Your task to perform on an android device: check battery use Image 0: 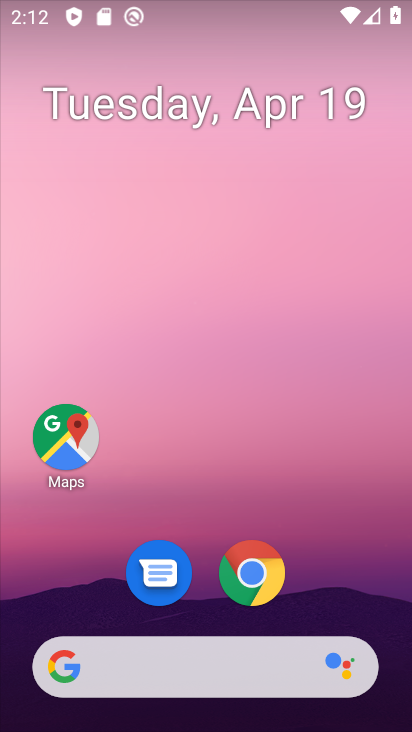
Step 0: drag from (356, 601) to (352, 28)
Your task to perform on an android device: check battery use Image 1: 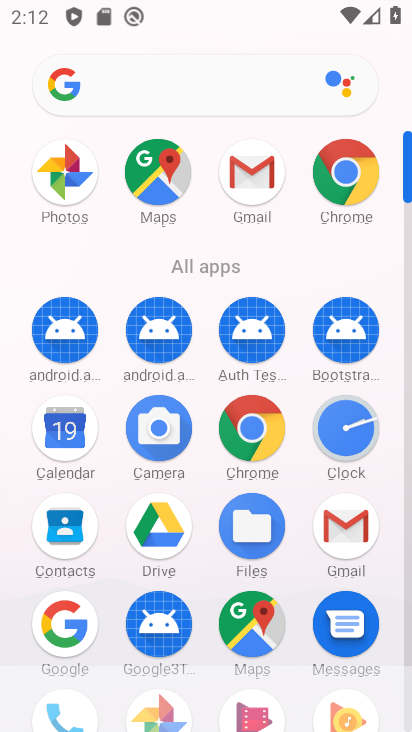
Step 1: click (409, 605)
Your task to perform on an android device: check battery use Image 2: 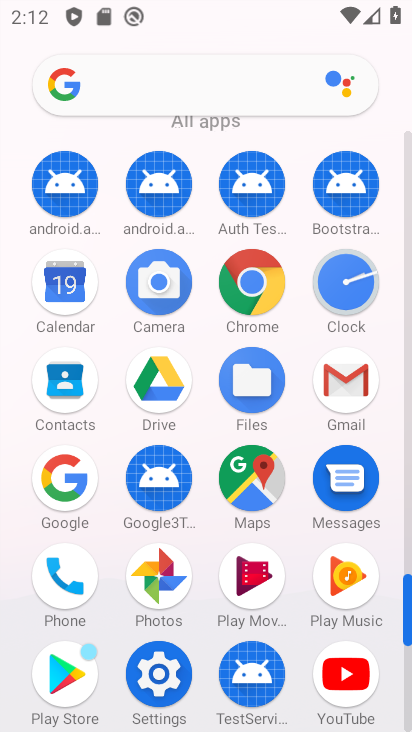
Step 2: click (156, 676)
Your task to perform on an android device: check battery use Image 3: 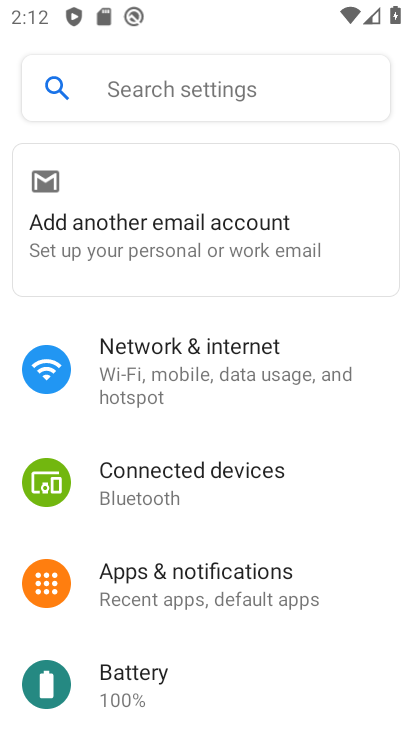
Step 3: click (149, 676)
Your task to perform on an android device: check battery use Image 4: 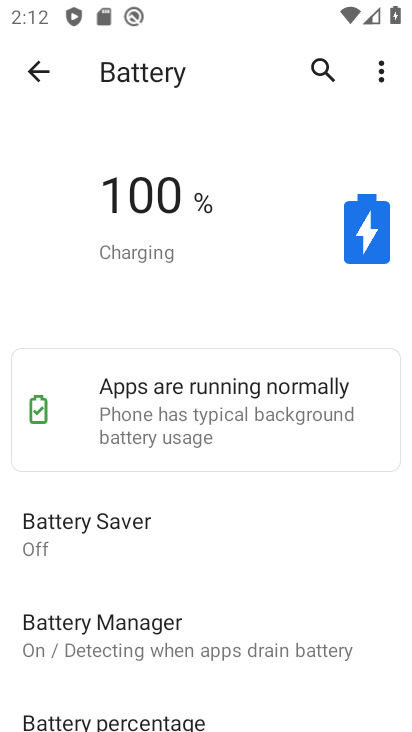
Step 4: click (378, 71)
Your task to perform on an android device: check battery use Image 5: 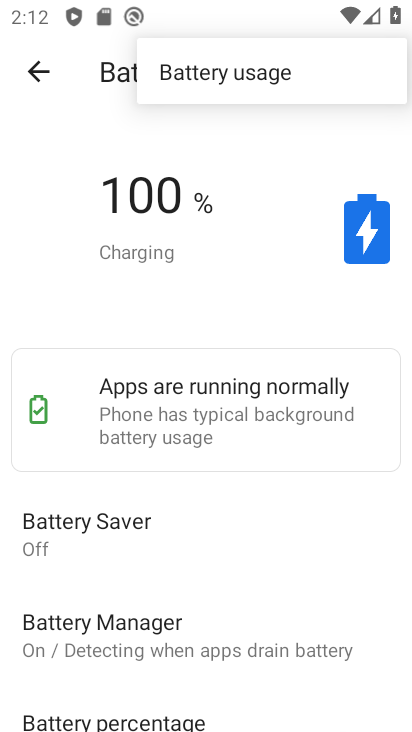
Step 5: click (199, 82)
Your task to perform on an android device: check battery use Image 6: 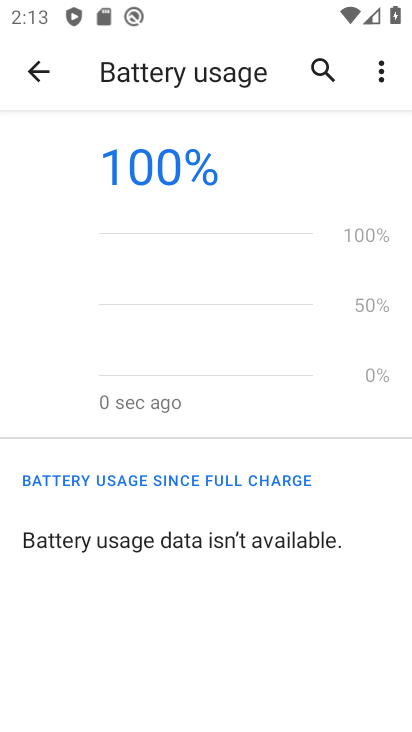
Step 6: task complete